Your task to perform on an android device: Check the news Image 0: 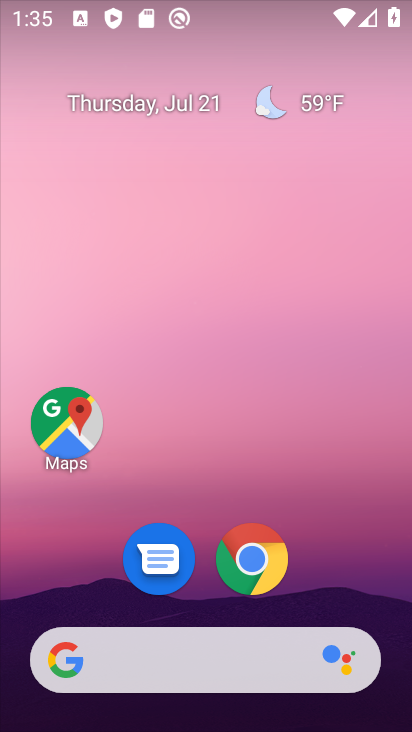
Step 0: drag from (289, 315) to (406, 494)
Your task to perform on an android device: Check the news Image 1: 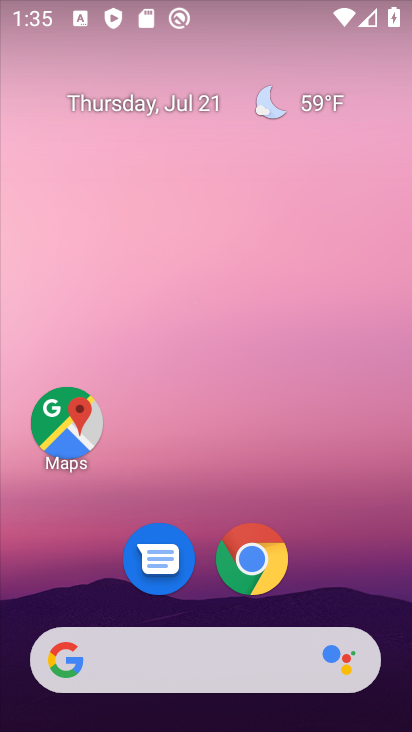
Step 1: drag from (225, 615) to (269, 79)
Your task to perform on an android device: Check the news Image 2: 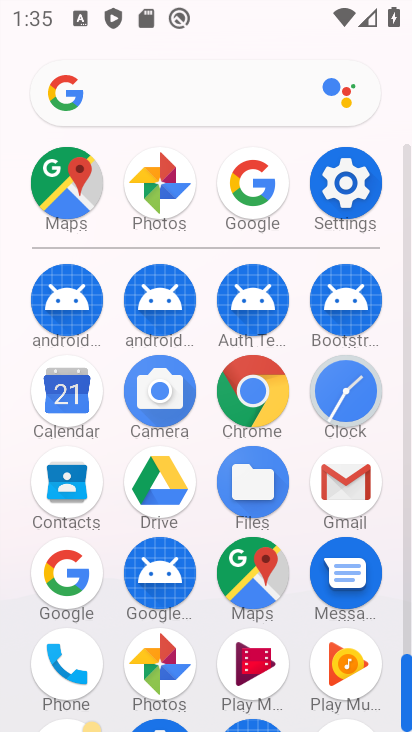
Step 2: drag from (225, 452) to (247, 184)
Your task to perform on an android device: Check the news Image 3: 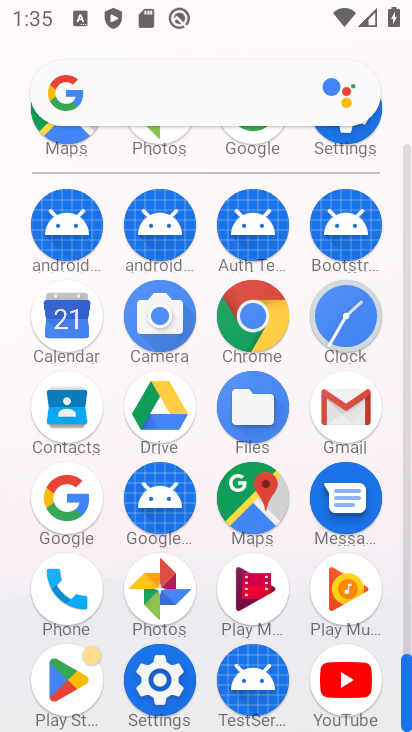
Step 3: drag from (220, 464) to (224, 9)
Your task to perform on an android device: Check the news Image 4: 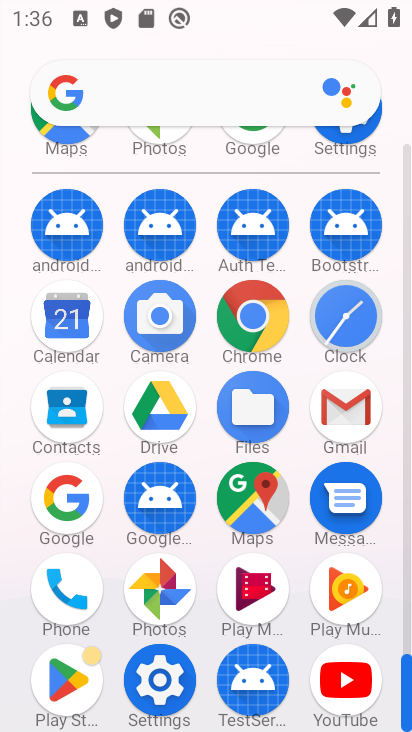
Step 4: click (87, 498)
Your task to perform on an android device: Check the news Image 5: 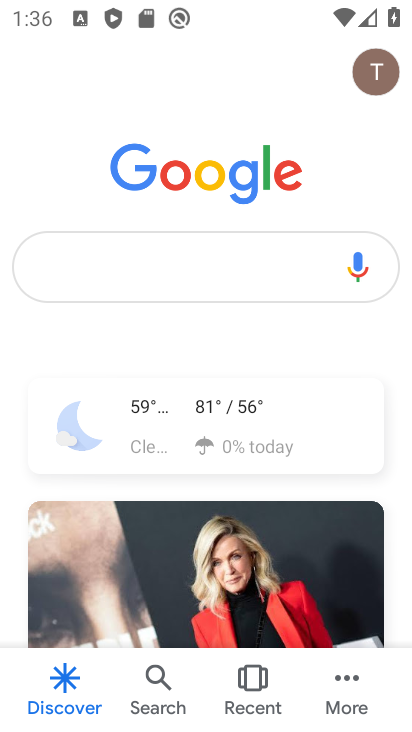
Step 5: click (199, 262)
Your task to perform on an android device: Check the news Image 6: 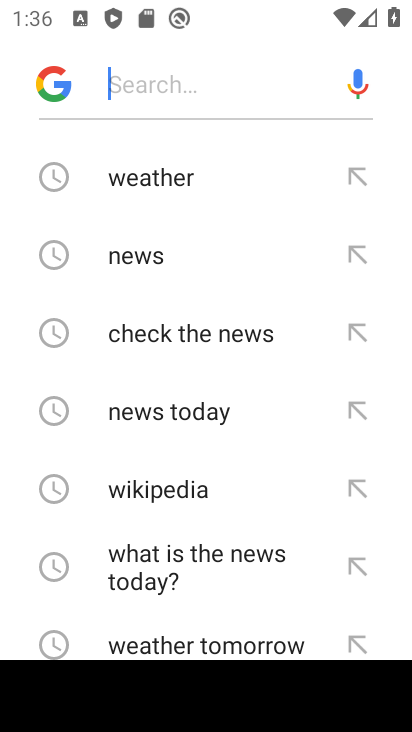
Step 6: click (165, 263)
Your task to perform on an android device: Check the news Image 7: 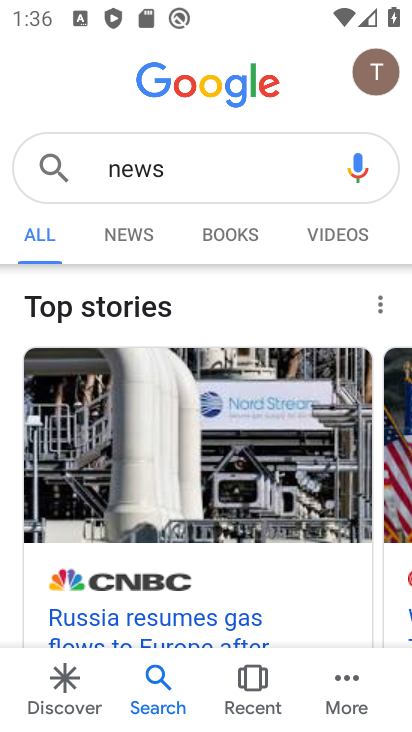
Step 7: click (128, 235)
Your task to perform on an android device: Check the news Image 8: 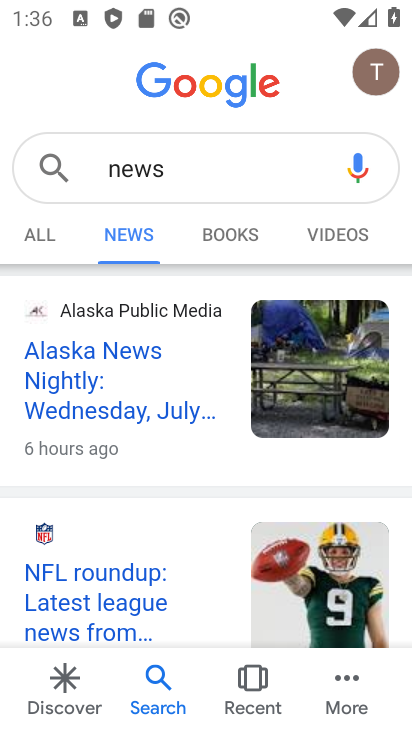
Step 8: task complete